Your task to perform on an android device: change your default location settings in chrome Image 0: 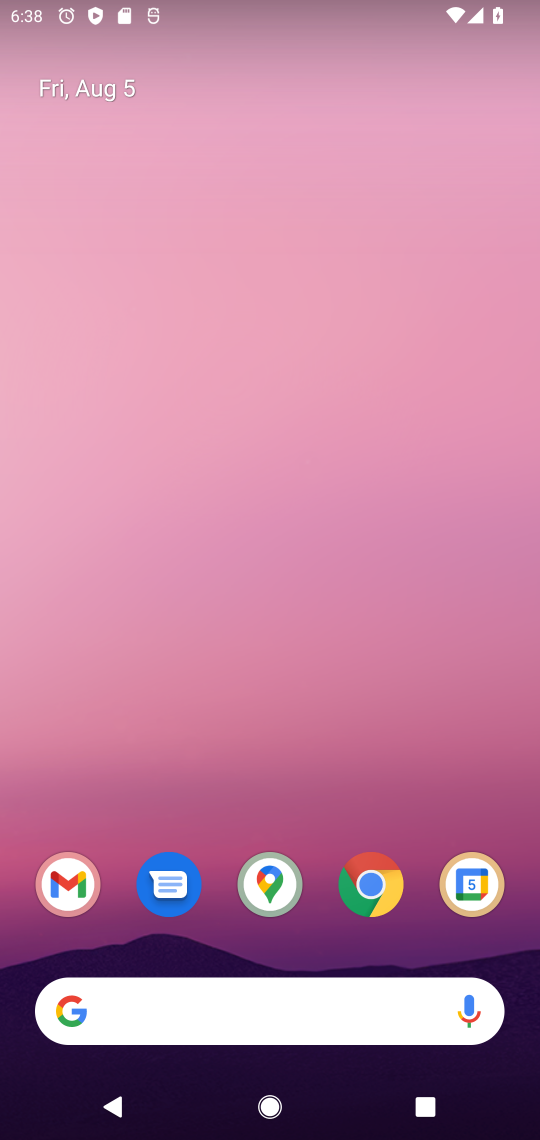
Step 0: press home button
Your task to perform on an android device: change your default location settings in chrome Image 1: 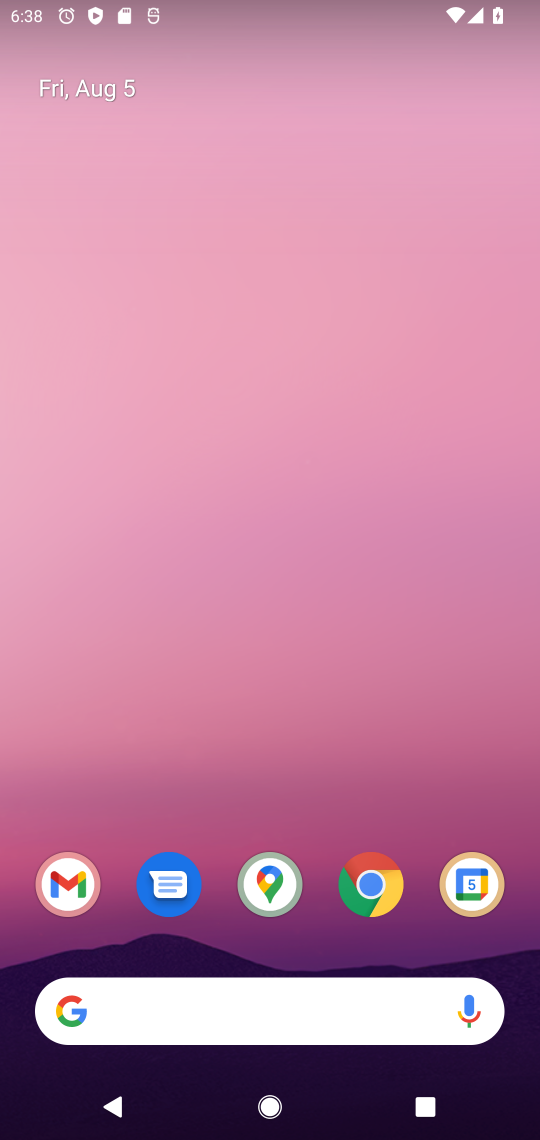
Step 1: drag from (328, 824) to (367, 138)
Your task to perform on an android device: change your default location settings in chrome Image 2: 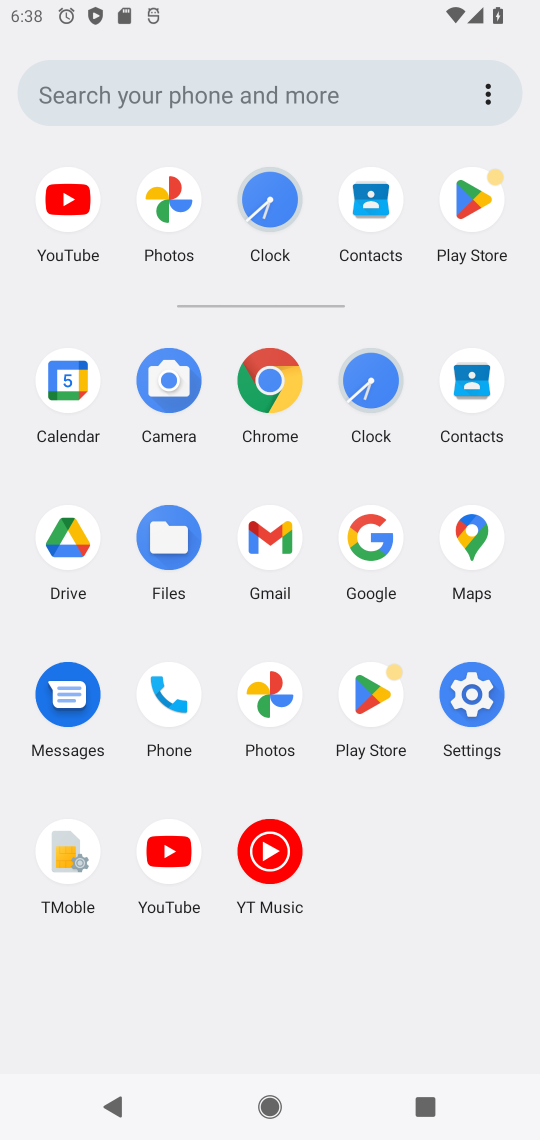
Step 2: click (258, 365)
Your task to perform on an android device: change your default location settings in chrome Image 3: 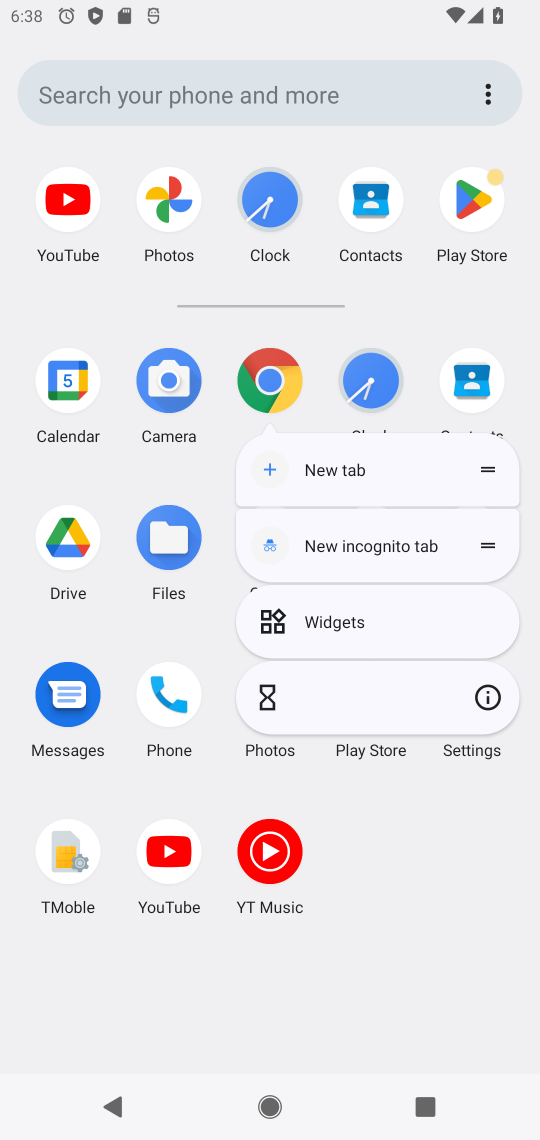
Step 3: click (266, 366)
Your task to perform on an android device: change your default location settings in chrome Image 4: 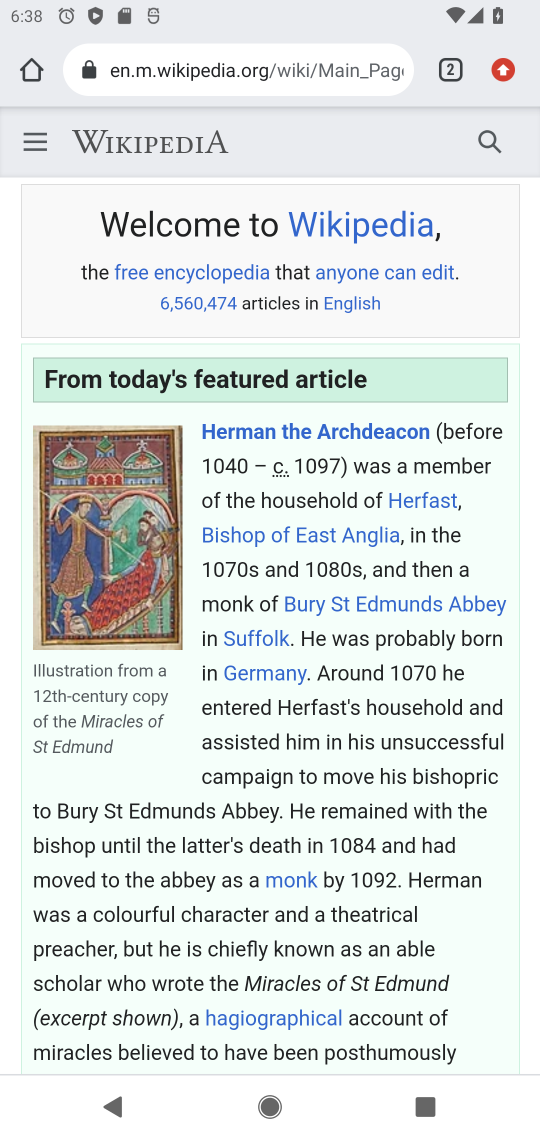
Step 4: click (506, 61)
Your task to perform on an android device: change your default location settings in chrome Image 5: 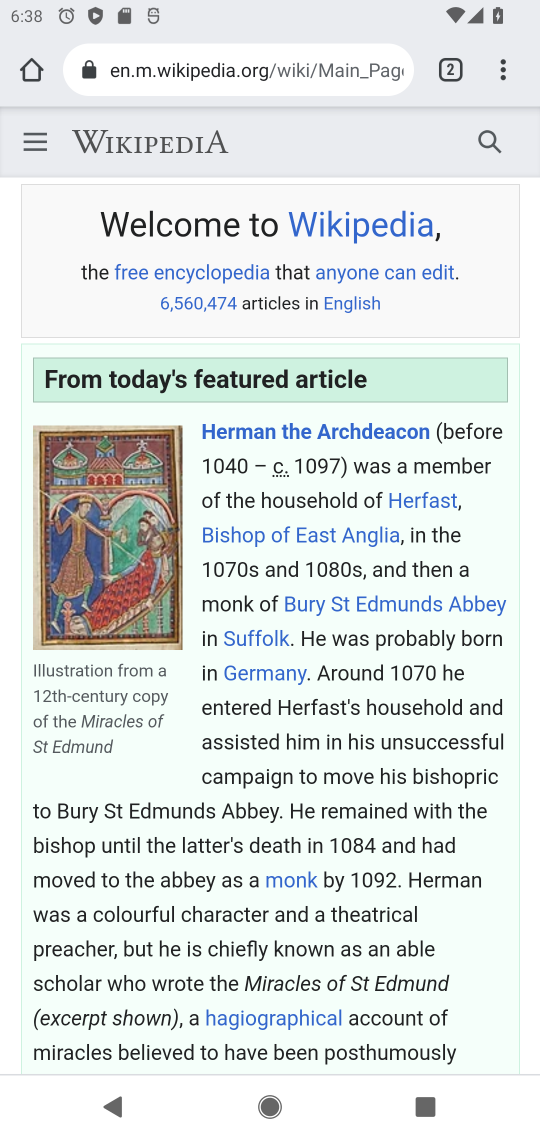
Step 5: click (507, 63)
Your task to perform on an android device: change your default location settings in chrome Image 6: 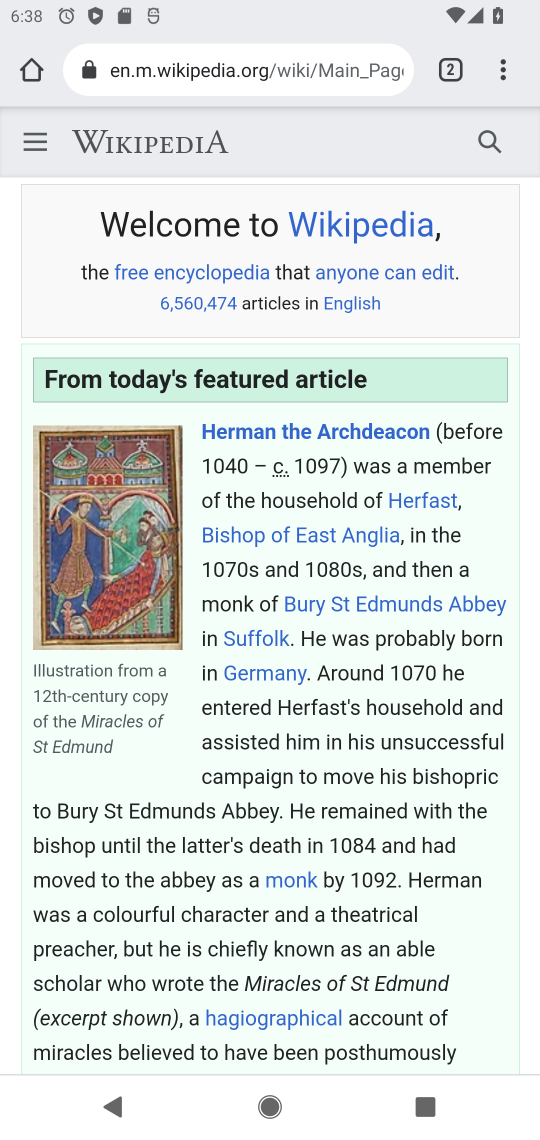
Step 6: click (498, 58)
Your task to perform on an android device: change your default location settings in chrome Image 7: 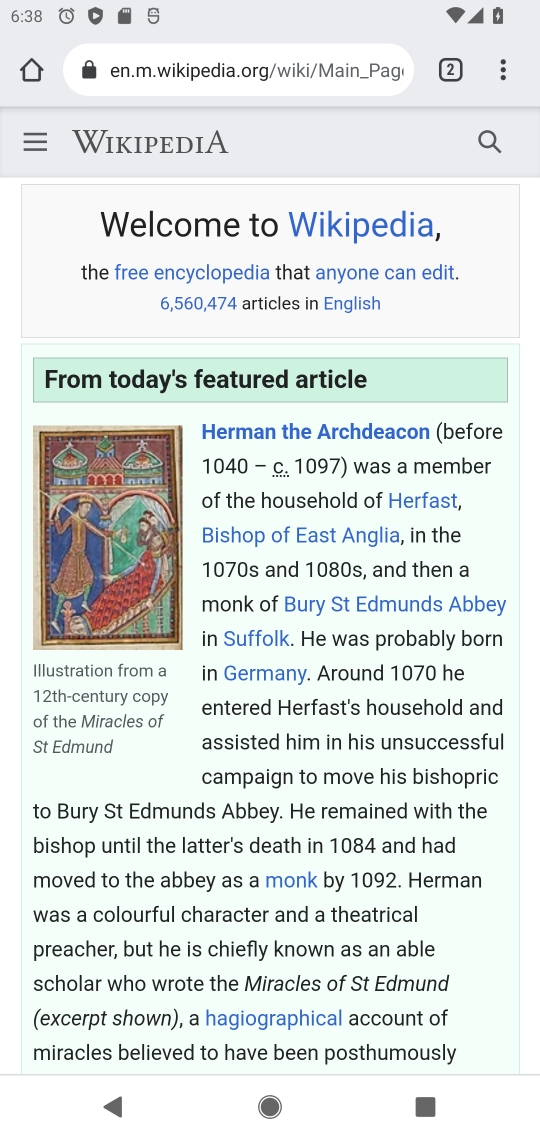
Step 7: click (494, 70)
Your task to perform on an android device: change your default location settings in chrome Image 8: 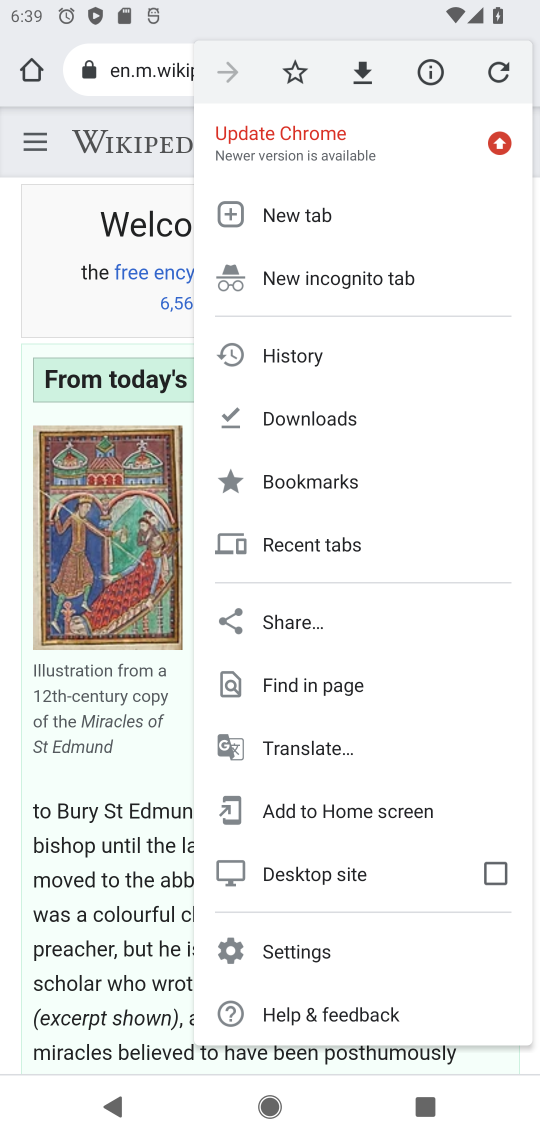
Step 8: click (331, 945)
Your task to perform on an android device: change your default location settings in chrome Image 9: 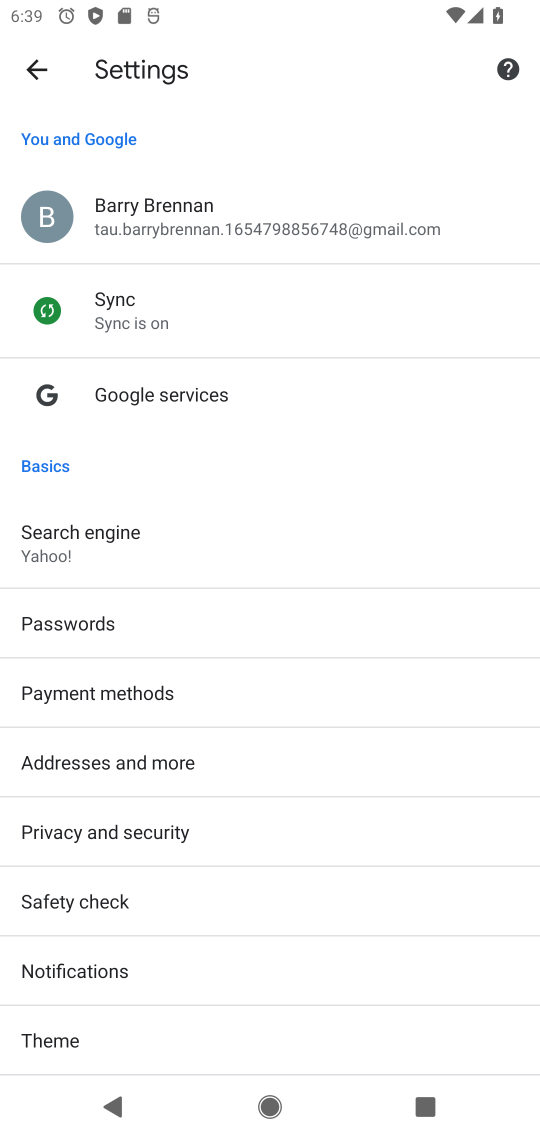
Step 9: drag from (178, 969) to (244, 206)
Your task to perform on an android device: change your default location settings in chrome Image 10: 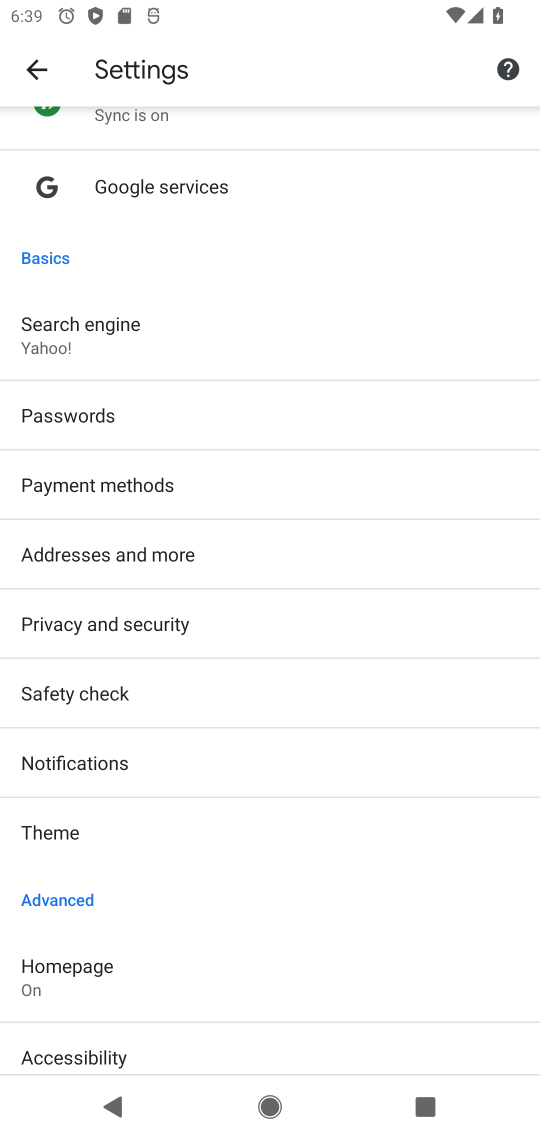
Step 10: drag from (215, 987) to (260, 281)
Your task to perform on an android device: change your default location settings in chrome Image 11: 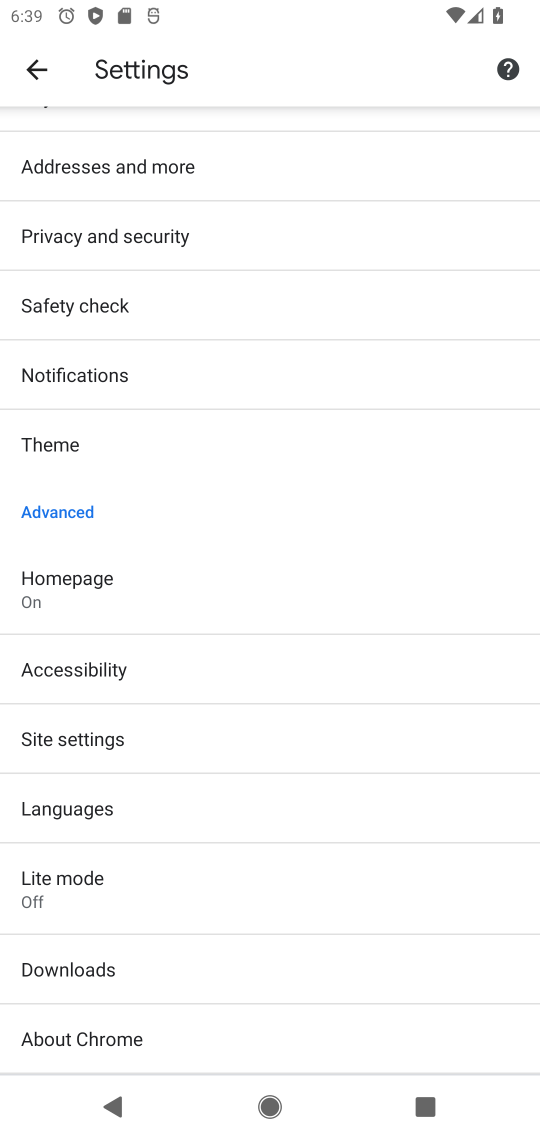
Step 11: click (146, 744)
Your task to perform on an android device: change your default location settings in chrome Image 12: 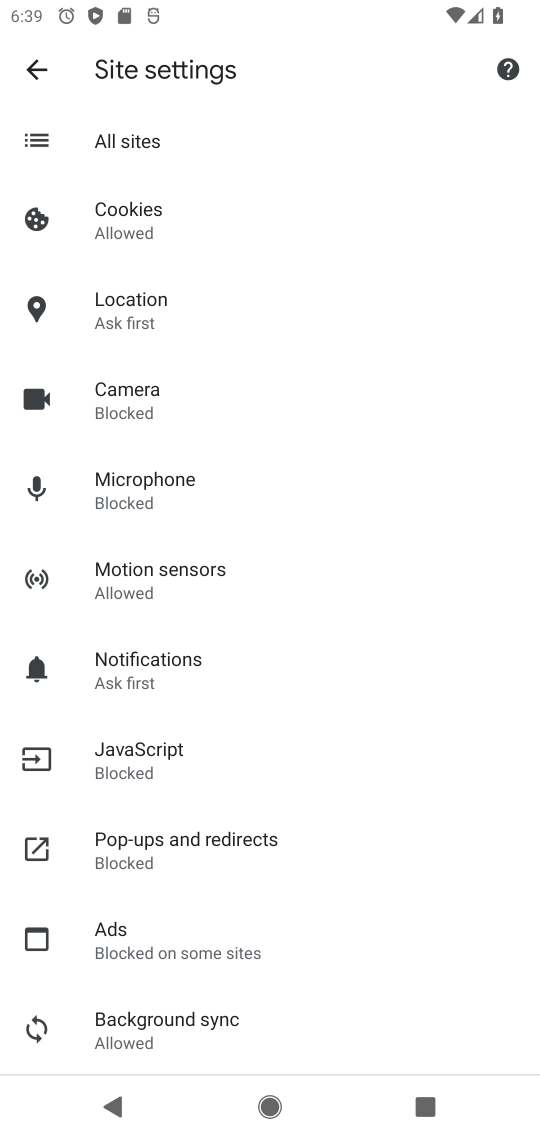
Step 12: click (200, 300)
Your task to perform on an android device: change your default location settings in chrome Image 13: 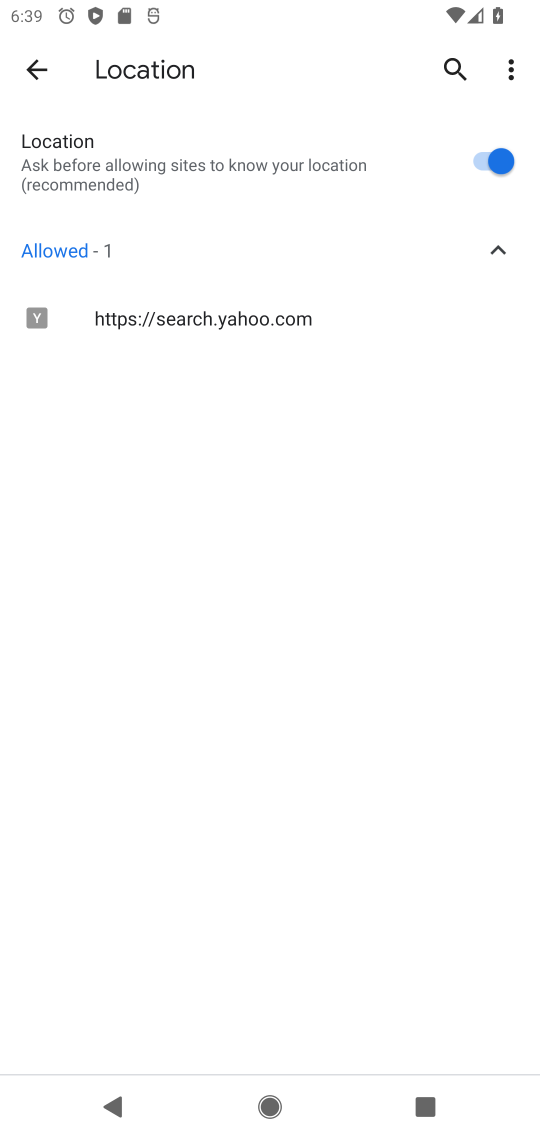
Step 13: click (497, 155)
Your task to perform on an android device: change your default location settings in chrome Image 14: 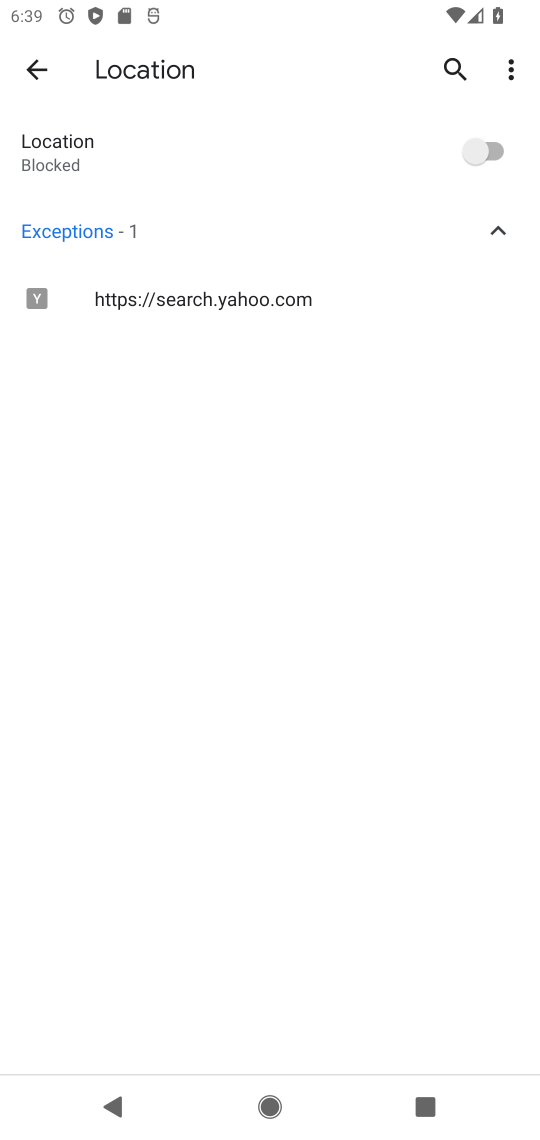
Step 14: task complete